Your task to perform on an android device: move a message to another label in the gmail app Image 0: 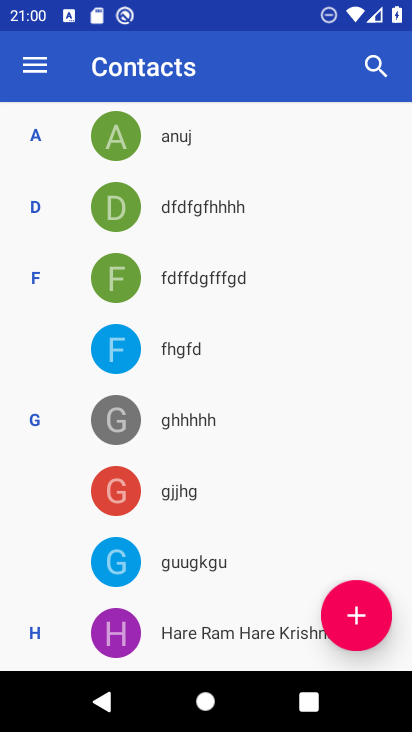
Step 0: press home button
Your task to perform on an android device: move a message to another label in the gmail app Image 1: 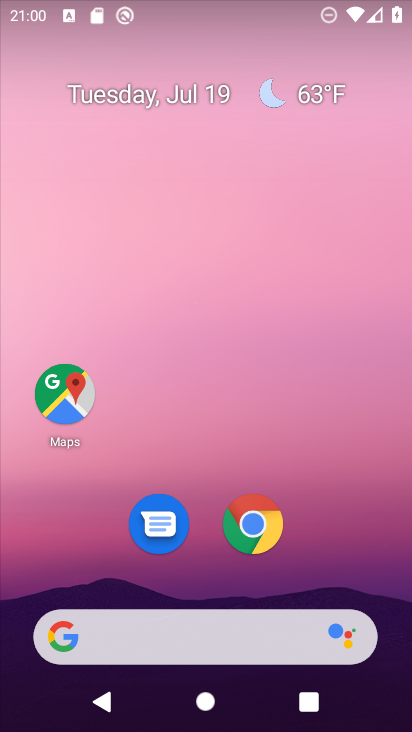
Step 1: drag from (311, 523) to (363, 40)
Your task to perform on an android device: move a message to another label in the gmail app Image 2: 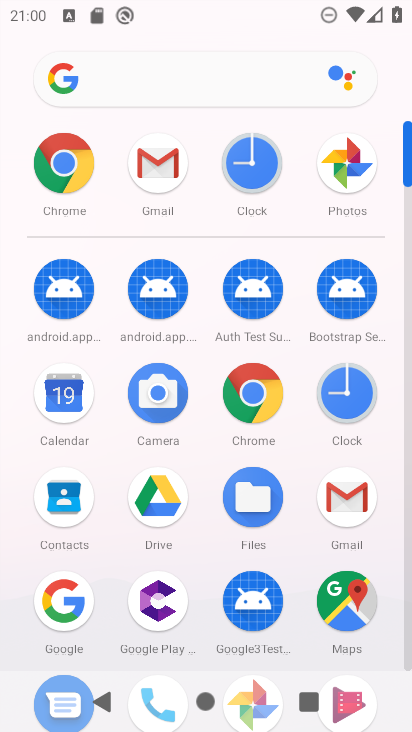
Step 2: click (168, 164)
Your task to perform on an android device: move a message to another label in the gmail app Image 3: 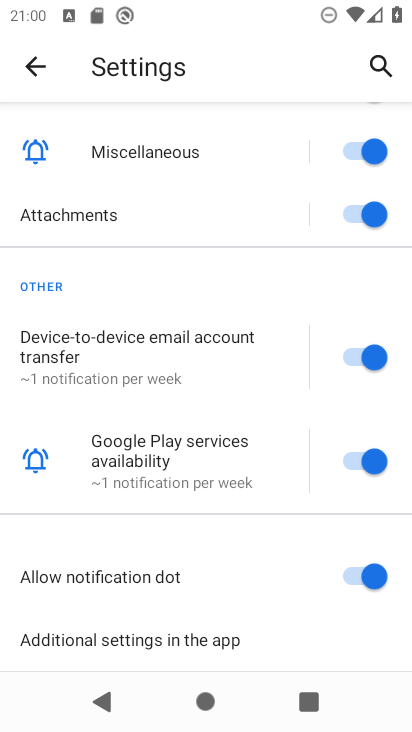
Step 3: click (40, 64)
Your task to perform on an android device: move a message to another label in the gmail app Image 4: 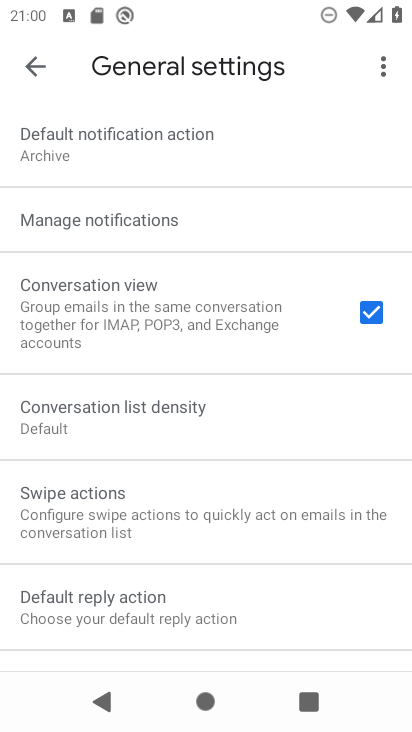
Step 4: click (45, 64)
Your task to perform on an android device: move a message to another label in the gmail app Image 5: 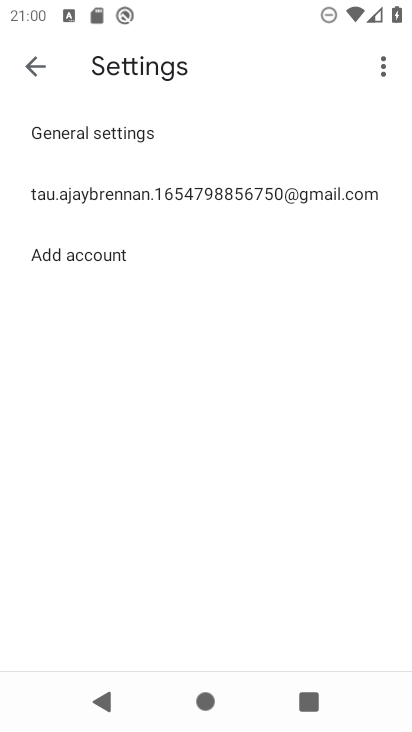
Step 5: click (41, 65)
Your task to perform on an android device: move a message to another label in the gmail app Image 6: 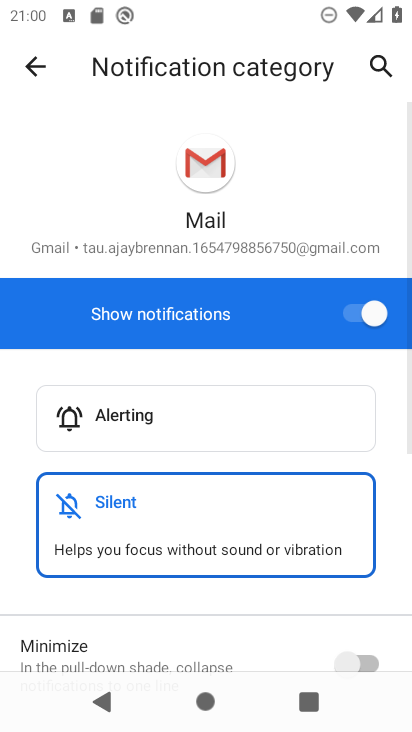
Step 6: click (41, 65)
Your task to perform on an android device: move a message to another label in the gmail app Image 7: 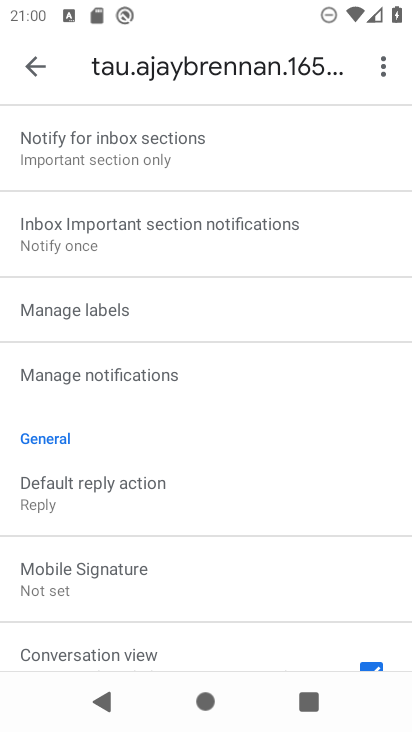
Step 7: click (34, 66)
Your task to perform on an android device: move a message to another label in the gmail app Image 8: 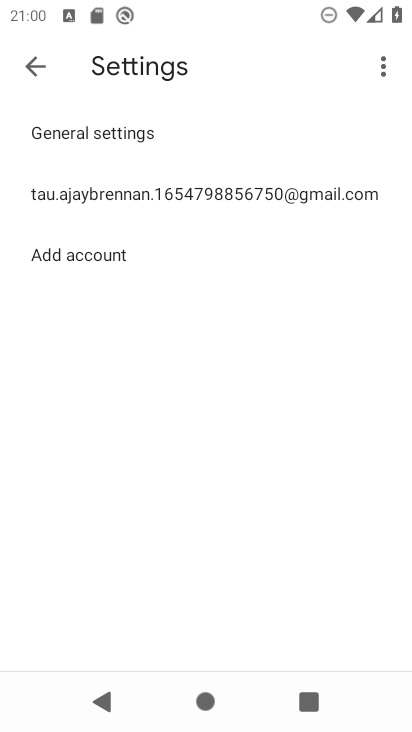
Step 8: click (38, 61)
Your task to perform on an android device: move a message to another label in the gmail app Image 9: 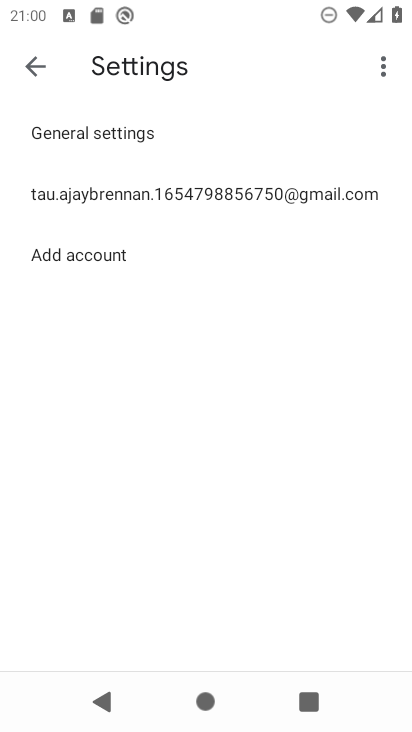
Step 9: click (38, 61)
Your task to perform on an android device: move a message to another label in the gmail app Image 10: 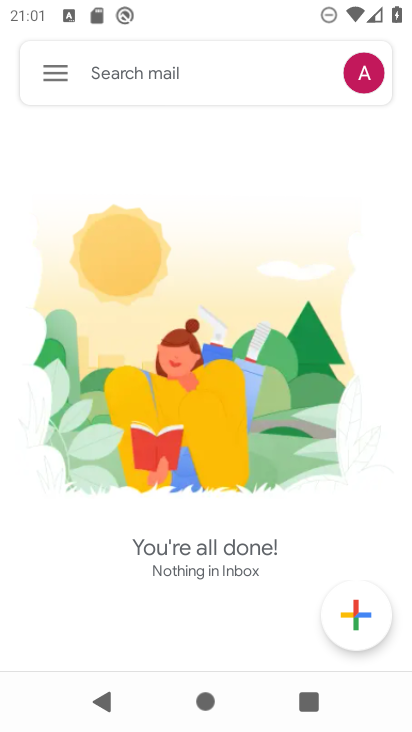
Step 10: click (50, 68)
Your task to perform on an android device: move a message to another label in the gmail app Image 11: 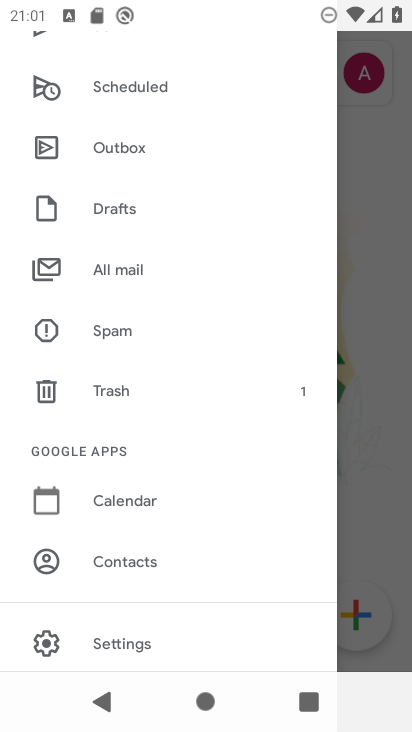
Step 11: click (128, 269)
Your task to perform on an android device: move a message to another label in the gmail app Image 12: 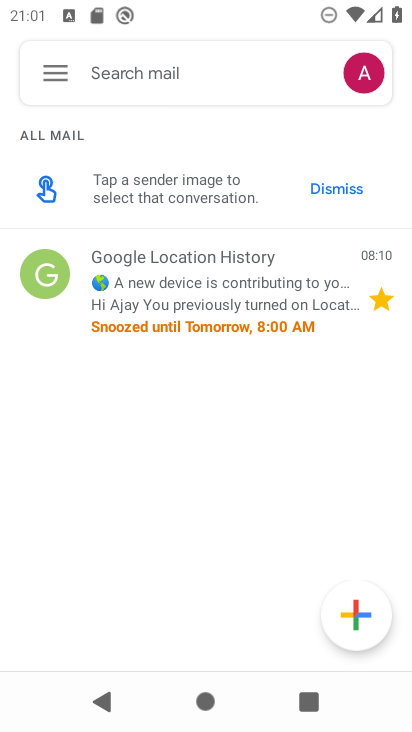
Step 12: click (161, 273)
Your task to perform on an android device: move a message to another label in the gmail app Image 13: 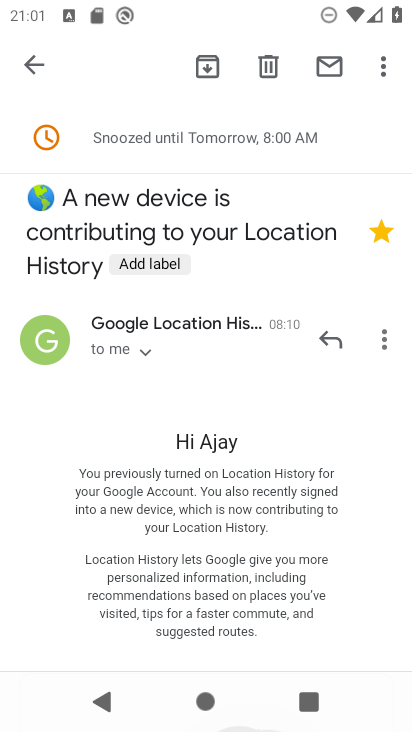
Step 13: click (379, 73)
Your task to perform on an android device: move a message to another label in the gmail app Image 14: 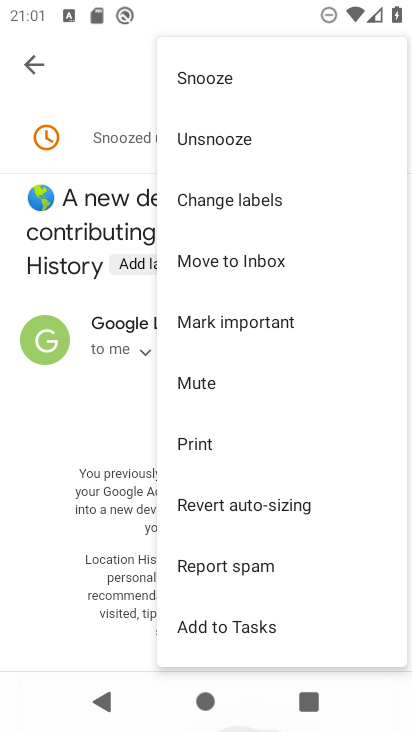
Step 14: click (265, 251)
Your task to perform on an android device: move a message to another label in the gmail app Image 15: 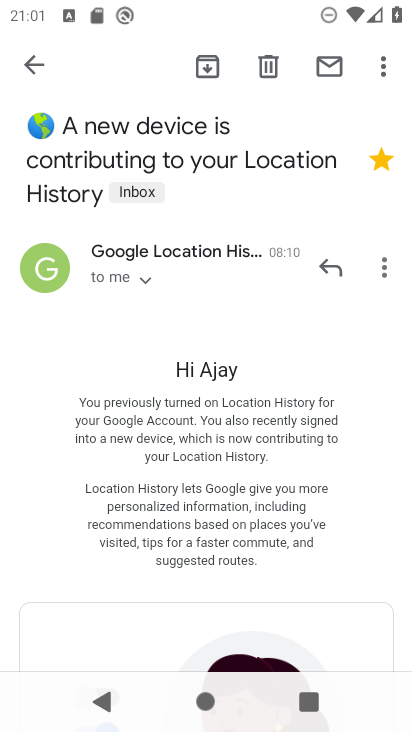
Step 15: task complete